Your task to perform on an android device: Find coffee shops on Maps Image 0: 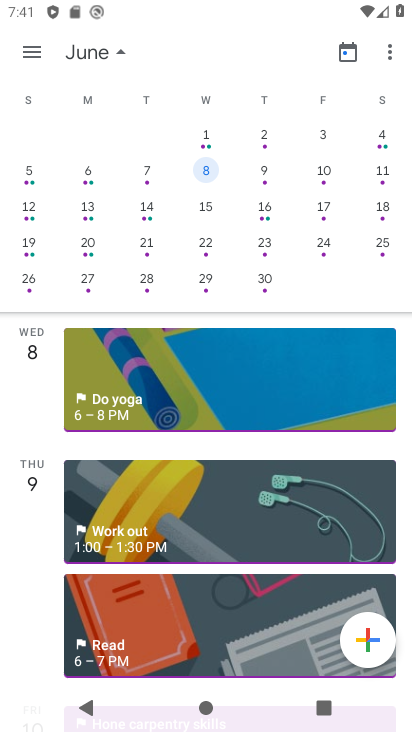
Step 0: press home button
Your task to perform on an android device: Find coffee shops on Maps Image 1: 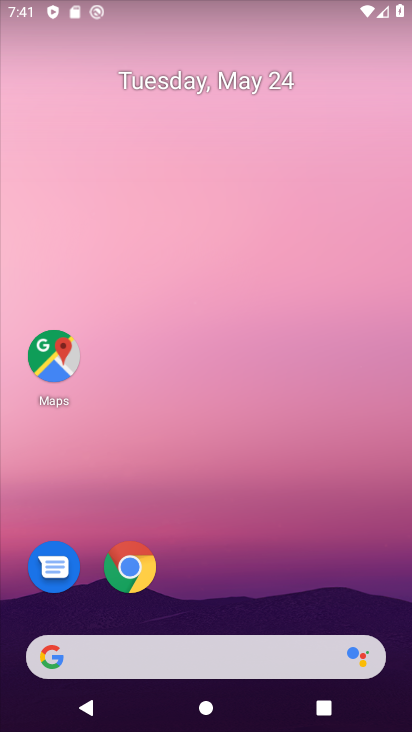
Step 1: click (51, 365)
Your task to perform on an android device: Find coffee shops on Maps Image 2: 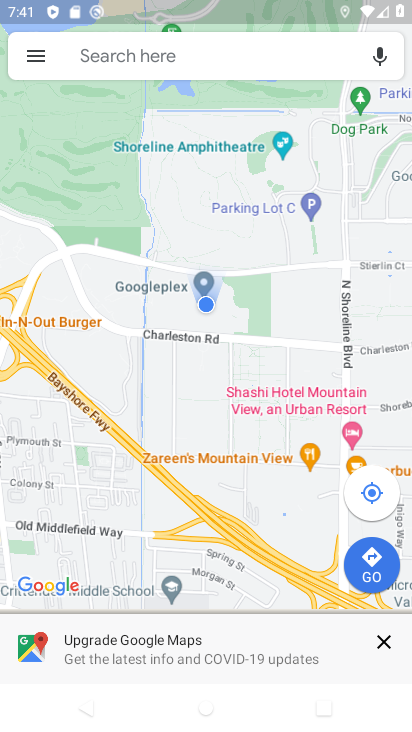
Step 2: click (238, 43)
Your task to perform on an android device: Find coffee shops on Maps Image 3: 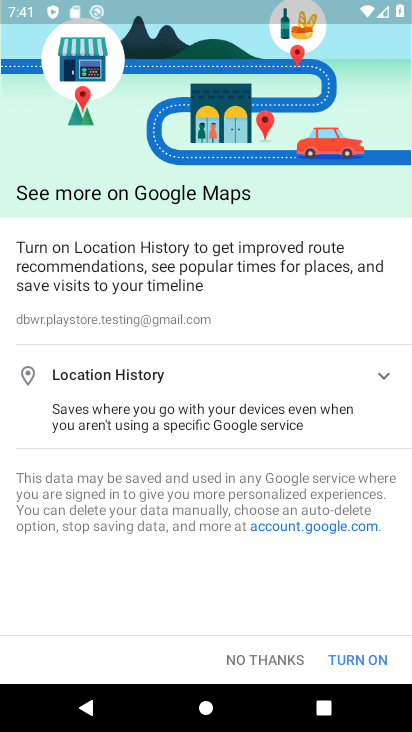
Step 3: click (366, 652)
Your task to perform on an android device: Find coffee shops on Maps Image 4: 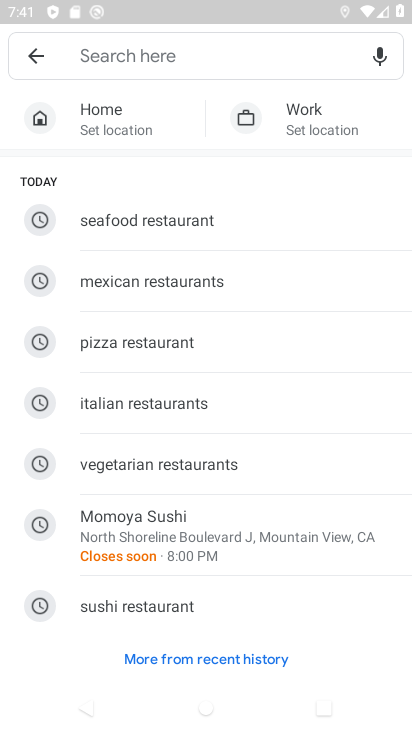
Step 4: click (161, 55)
Your task to perform on an android device: Find coffee shops on Maps Image 5: 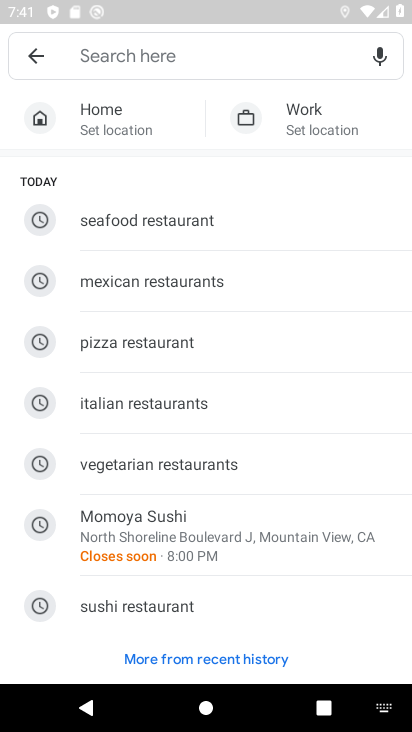
Step 5: type "coffee"
Your task to perform on an android device: Find coffee shops on Maps Image 6: 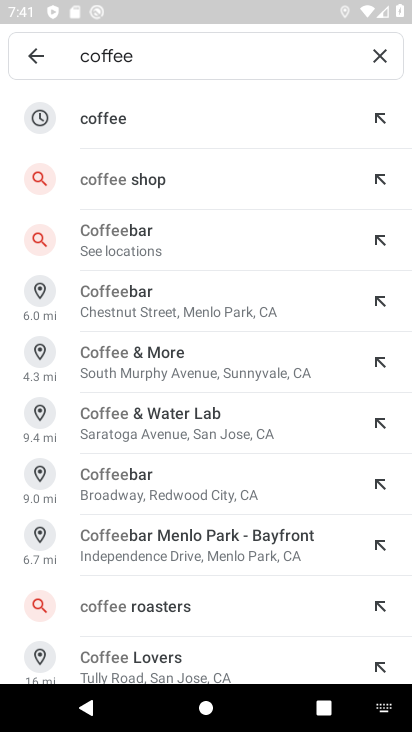
Step 6: click (189, 188)
Your task to perform on an android device: Find coffee shops on Maps Image 7: 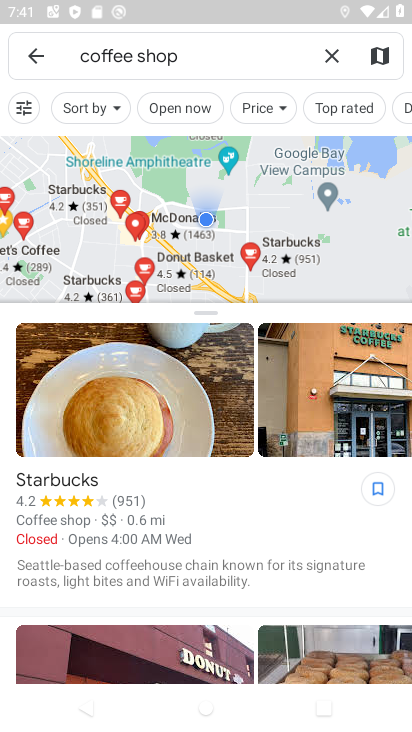
Step 7: task complete